Your task to perform on an android device: What's on my calendar tomorrow? Image 0: 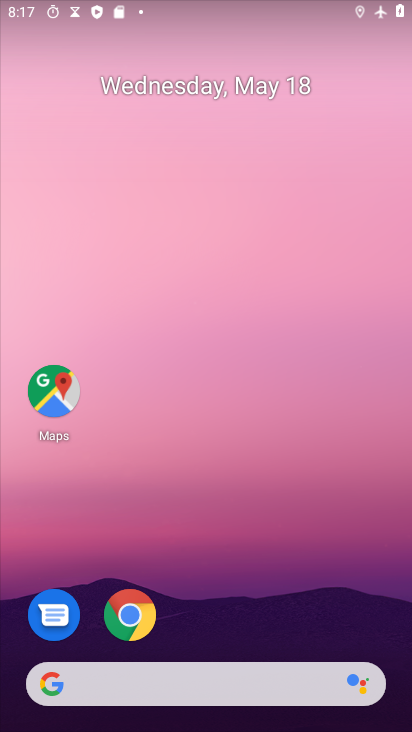
Step 0: click (243, 82)
Your task to perform on an android device: What's on my calendar tomorrow? Image 1: 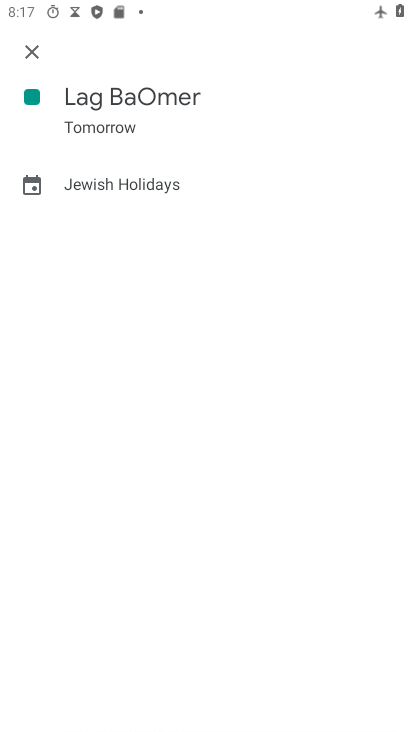
Step 1: click (37, 52)
Your task to perform on an android device: What's on my calendar tomorrow? Image 2: 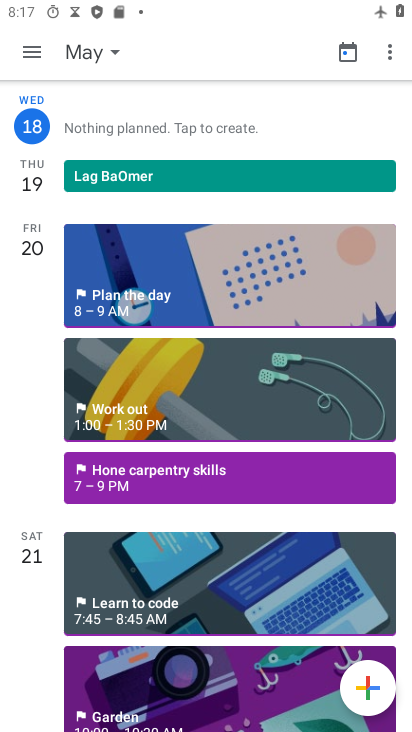
Step 2: task complete